Your task to perform on an android device: turn notification dots off Image 0: 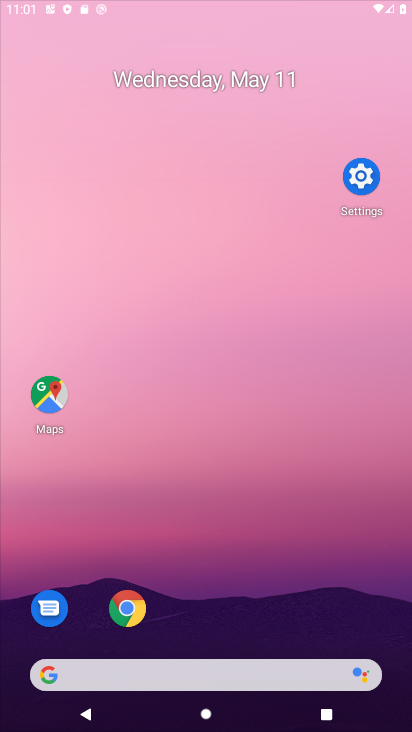
Step 0: drag from (252, 408) to (151, 133)
Your task to perform on an android device: turn notification dots off Image 1: 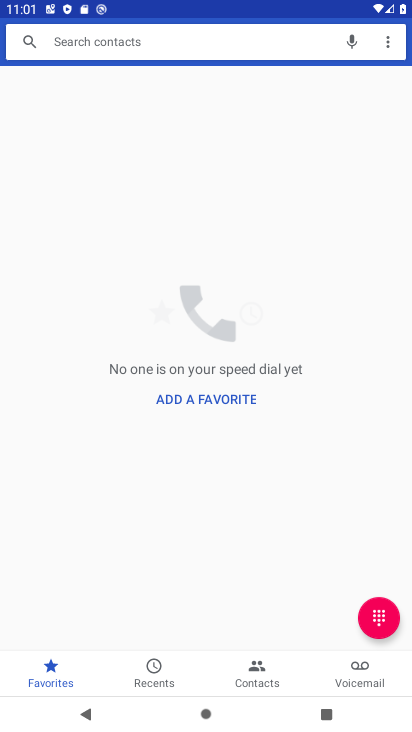
Step 1: press back button
Your task to perform on an android device: turn notification dots off Image 2: 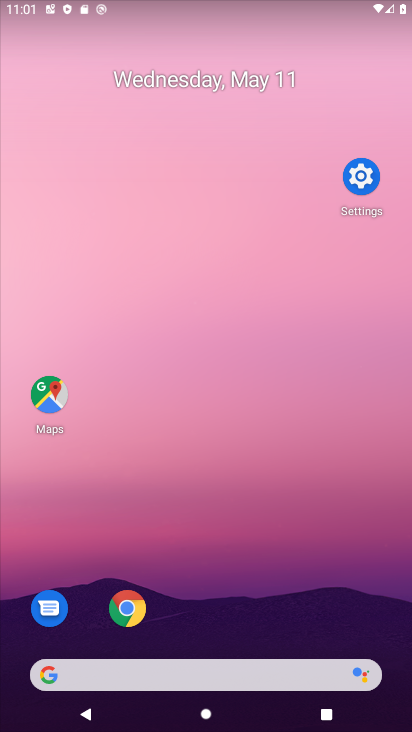
Step 2: drag from (205, 235) to (203, 187)
Your task to perform on an android device: turn notification dots off Image 3: 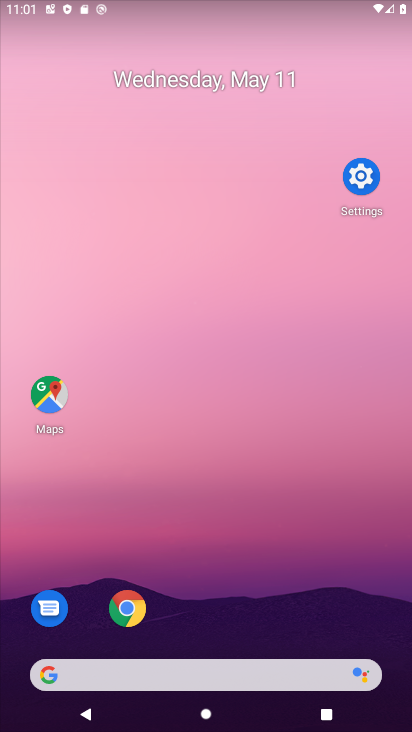
Step 3: drag from (300, 508) to (164, 127)
Your task to perform on an android device: turn notification dots off Image 4: 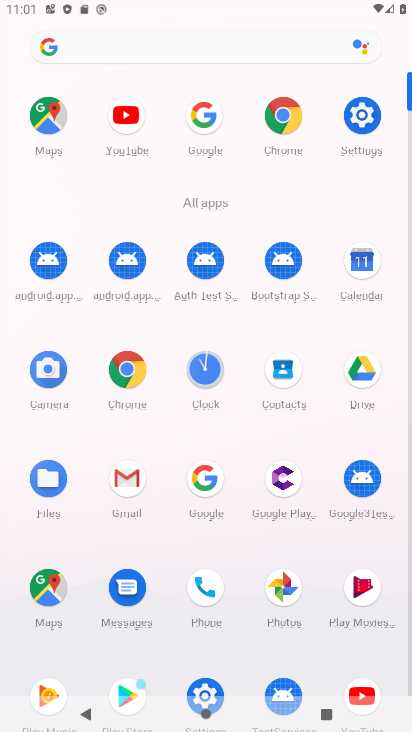
Step 4: click (360, 111)
Your task to perform on an android device: turn notification dots off Image 5: 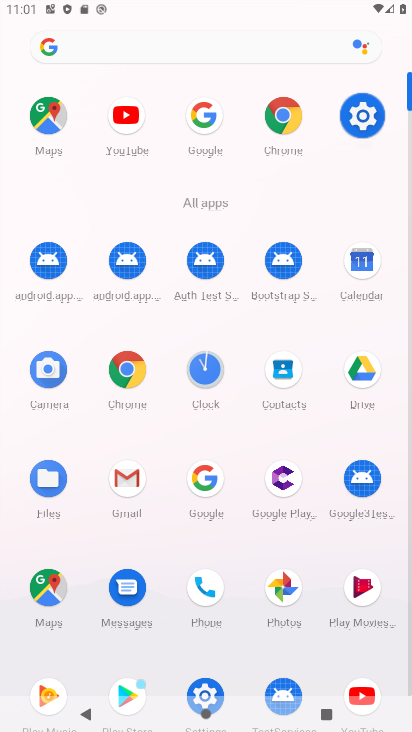
Step 5: click (360, 111)
Your task to perform on an android device: turn notification dots off Image 6: 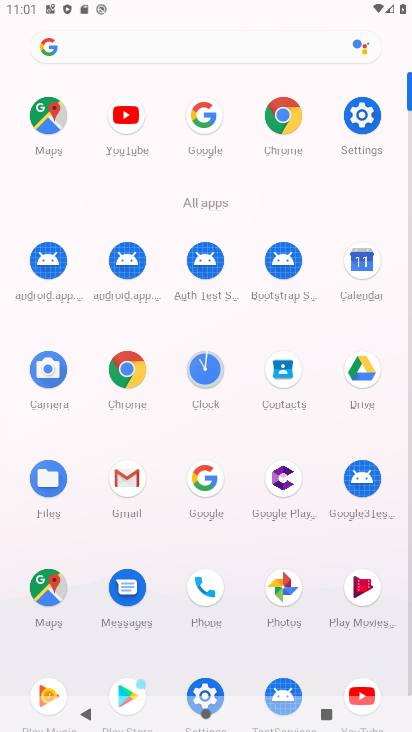
Step 6: click (354, 119)
Your task to perform on an android device: turn notification dots off Image 7: 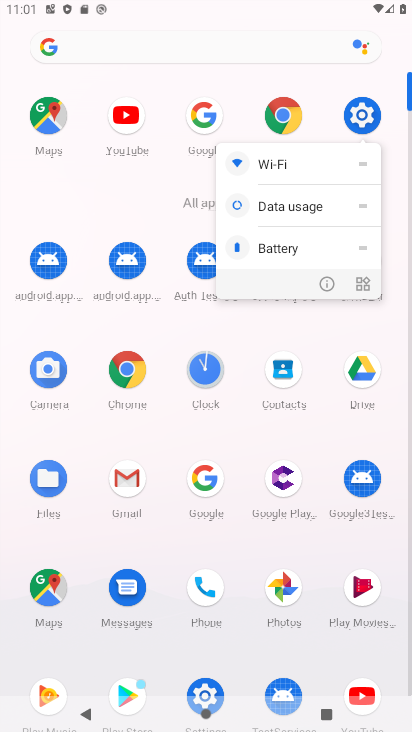
Step 7: click (328, 126)
Your task to perform on an android device: turn notification dots off Image 8: 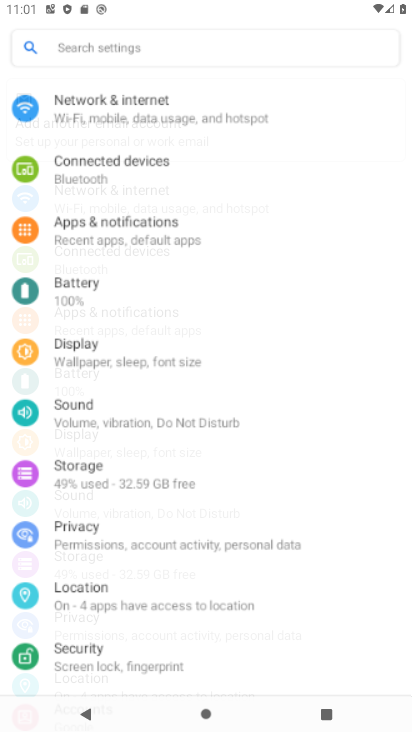
Step 8: click (370, 116)
Your task to perform on an android device: turn notification dots off Image 9: 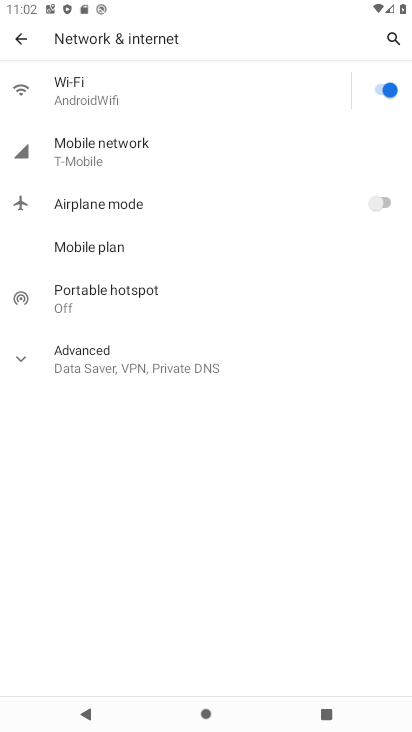
Step 9: click (16, 33)
Your task to perform on an android device: turn notification dots off Image 10: 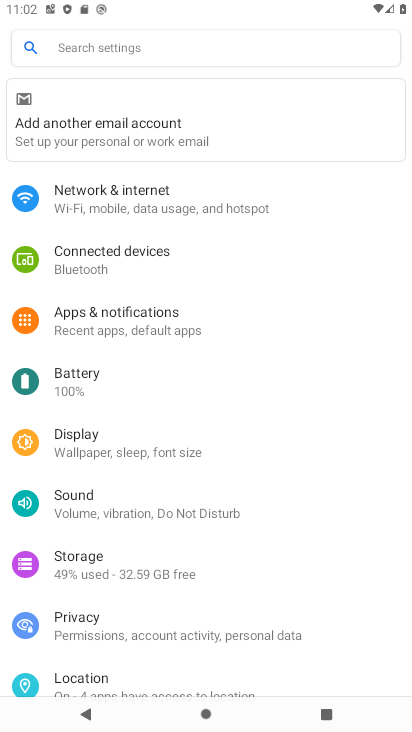
Step 10: drag from (162, 534) to (216, 80)
Your task to perform on an android device: turn notification dots off Image 11: 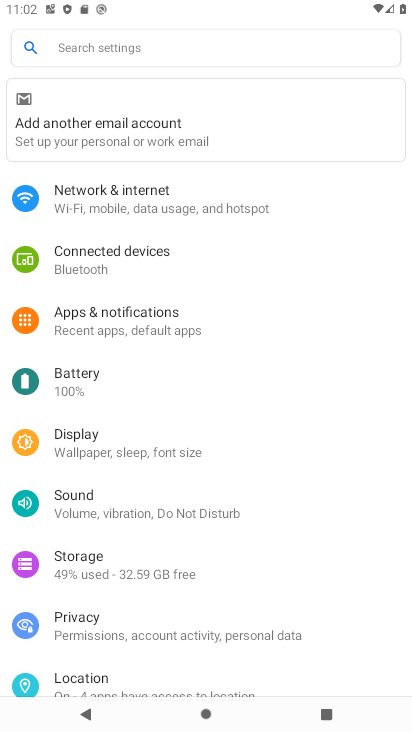
Step 11: click (108, 316)
Your task to perform on an android device: turn notification dots off Image 12: 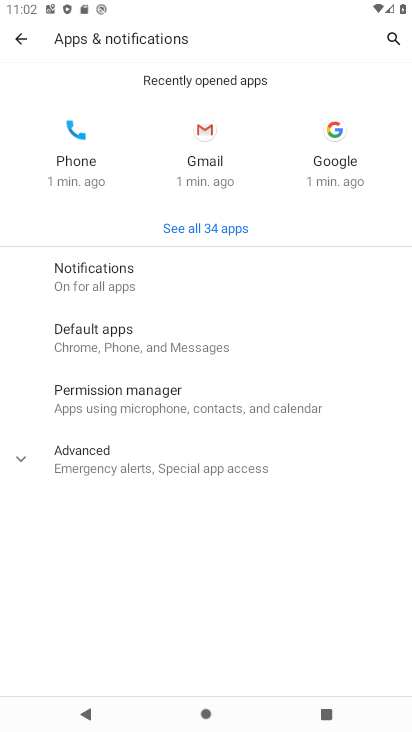
Step 12: click (106, 286)
Your task to perform on an android device: turn notification dots off Image 13: 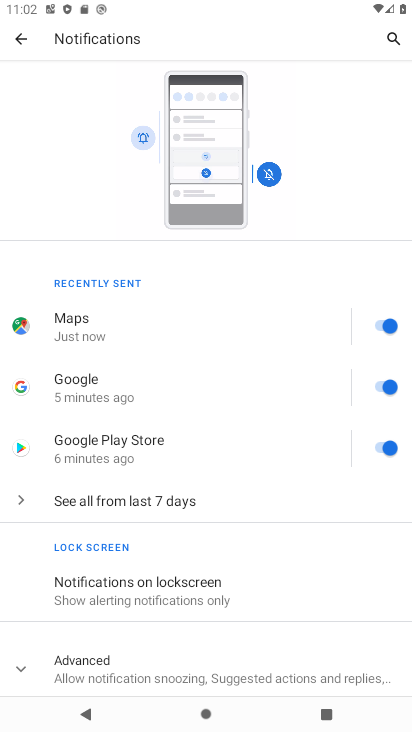
Step 13: drag from (198, 580) to (148, 197)
Your task to perform on an android device: turn notification dots off Image 14: 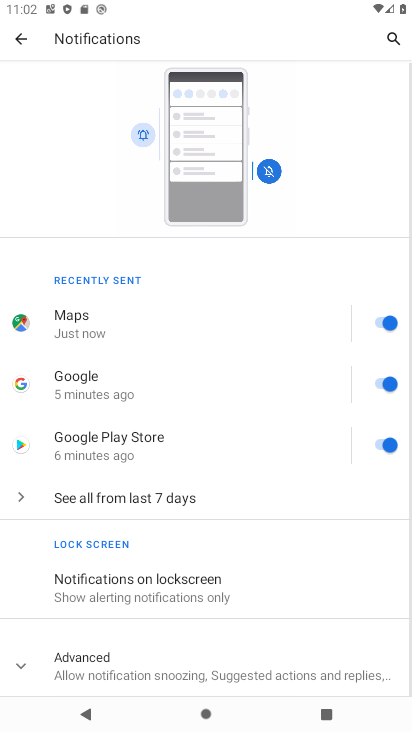
Step 14: drag from (148, 280) to (138, 166)
Your task to perform on an android device: turn notification dots off Image 15: 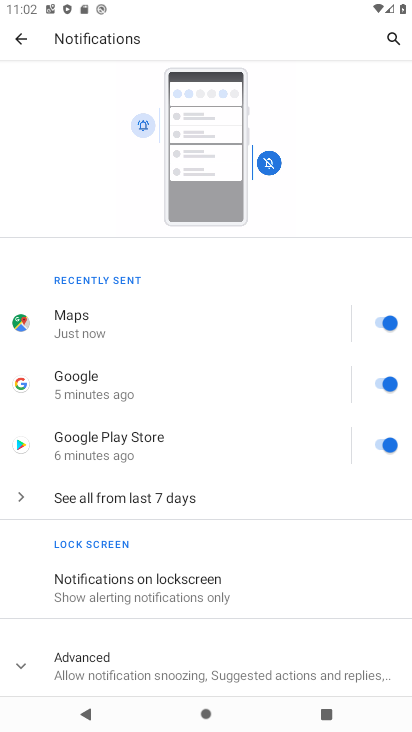
Step 15: click (127, 664)
Your task to perform on an android device: turn notification dots off Image 16: 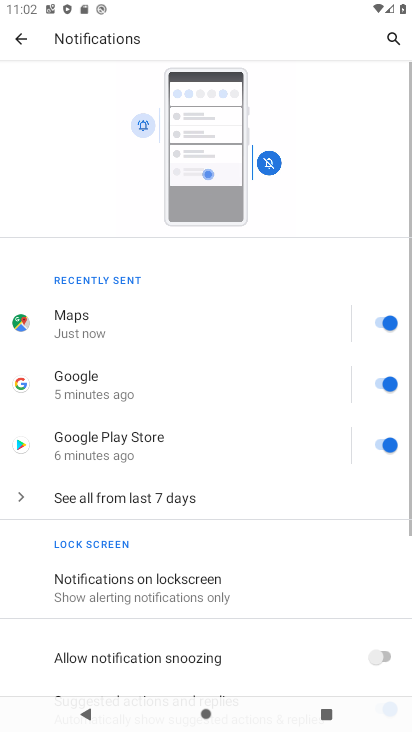
Step 16: drag from (145, 622) to (180, 203)
Your task to perform on an android device: turn notification dots off Image 17: 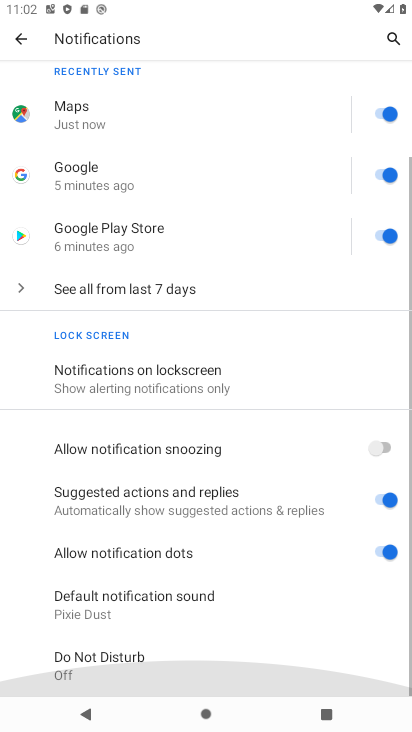
Step 17: drag from (260, 555) to (218, 141)
Your task to perform on an android device: turn notification dots off Image 18: 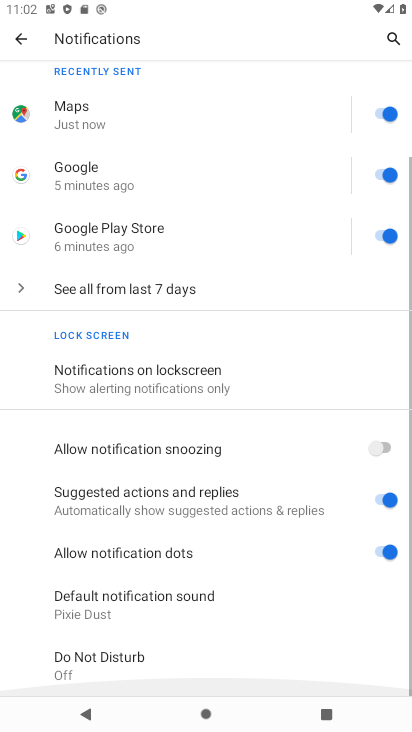
Step 18: drag from (196, 558) to (249, 161)
Your task to perform on an android device: turn notification dots off Image 19: 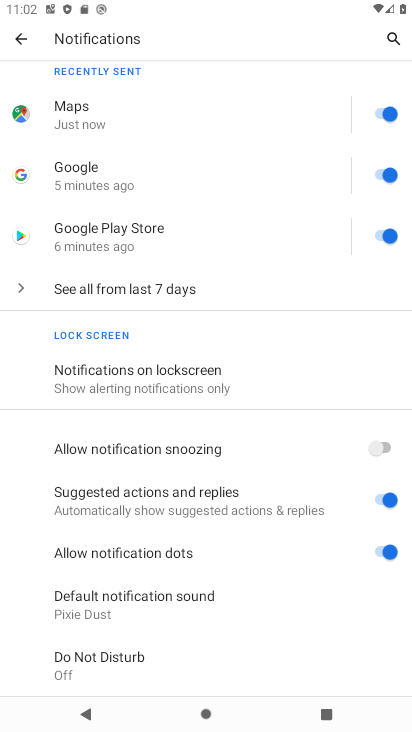
Step 19: click (391, 548)
Your task to perform on an android device: turn notification dots off Image 20: 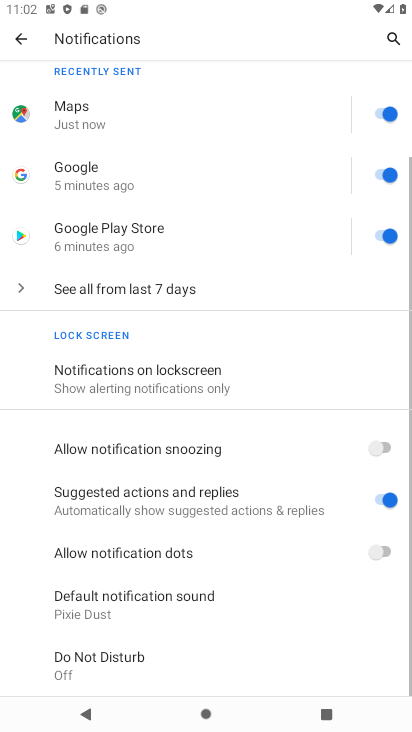
Step 20: task complete